Your task to perform on an android device: change the clock display to digital Image 0: 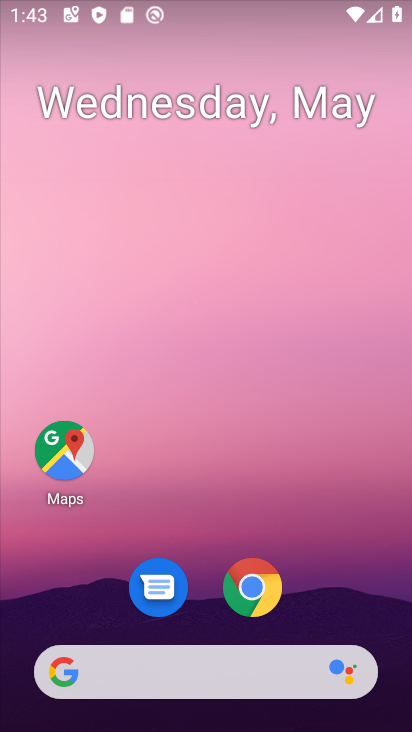
Step 0: drag from (239, 509) to (220, 3)
Your task to perform on an android device: change the clock display to digital Image 1: 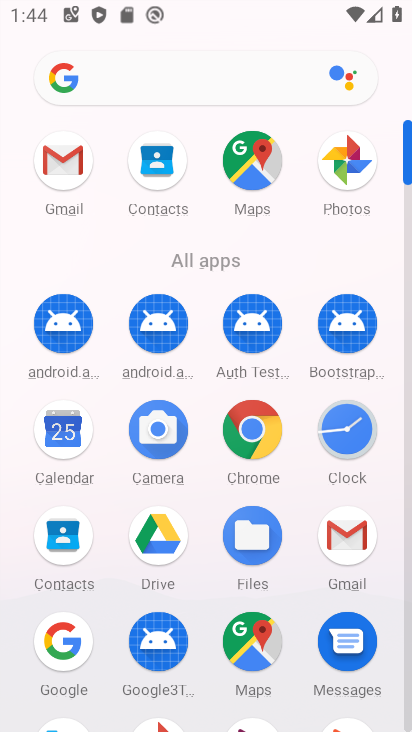
Step 1: click (348, 421)
Your task to perform on an android device: change the clock display to digital Image 2: 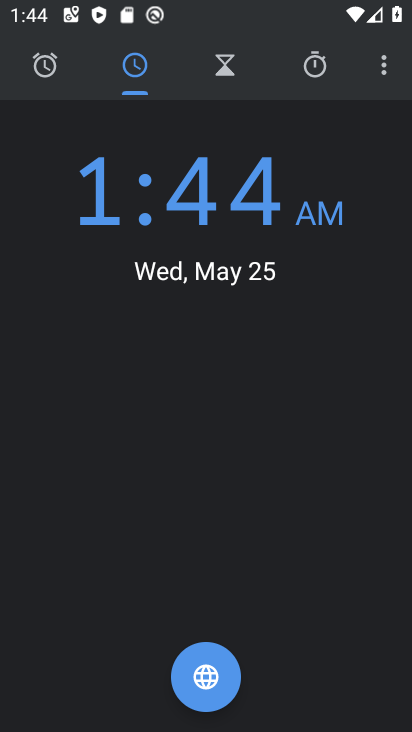
Step 2: click (391, 71)
Your task to perform on an android device: change the clock display to digital Image 3: 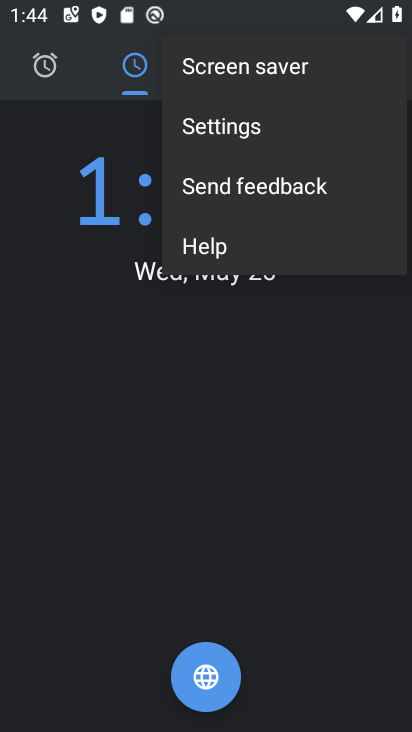
Step 3: click (215, 142)
Your task to perform on an android device: change the clock display to digital Image 4: 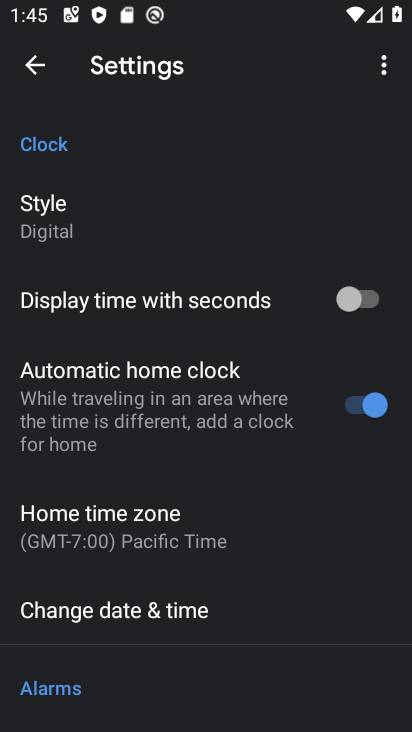
Step 4: task complete